Your task to perform on an android device: Go to sound settings Image 0: 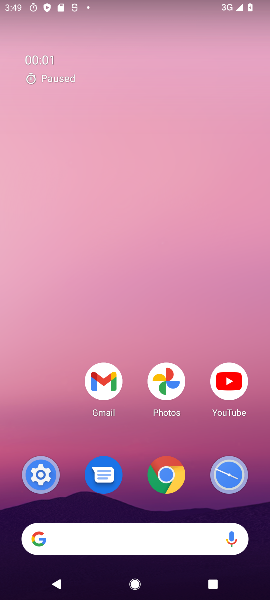
Step 0: click (39, 470)
Your task to perform on an android device: Go to sound settings Image 1: 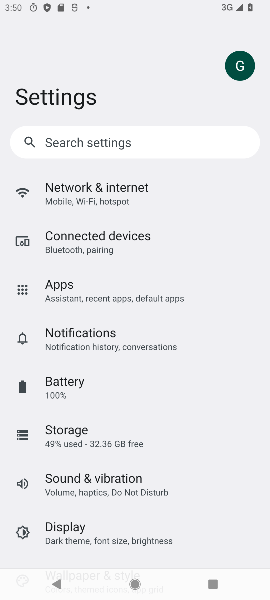
Step 1: drag from (197, 563) to (143, 295)
Your task to perform on an android device: Go to sound settings Image 2: 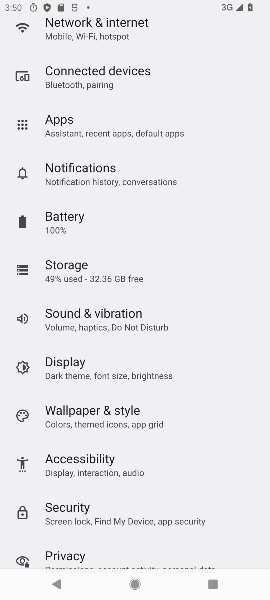
Step 2: drag from (225, 530) to (175, 232)
Your task to perform on an android device: Go to sound settings Image 3: 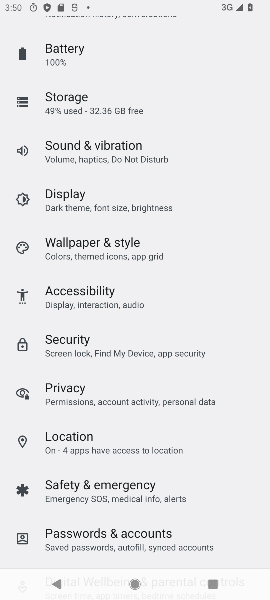
Step 3: click (65, 155)
Your task to perform on an android device: Go to sound settings Image 4: 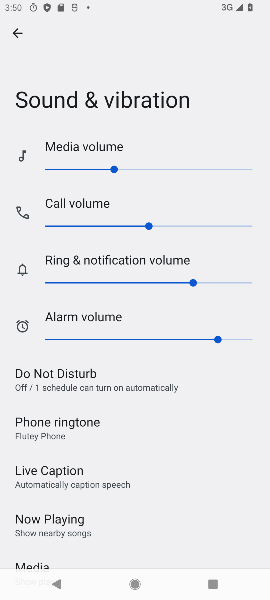
Step 4: task complete